Your task to perform on an android device: Go to Yahoo.com Image 0: 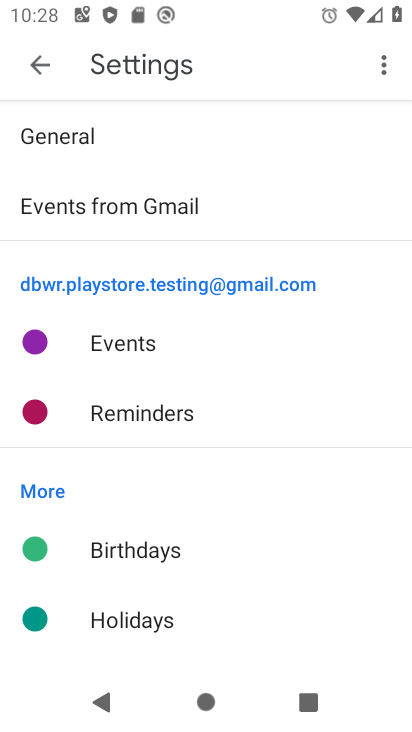
Step 0: press home button
Your task to perform on an android device: Go to Yahoo.com Image 1: 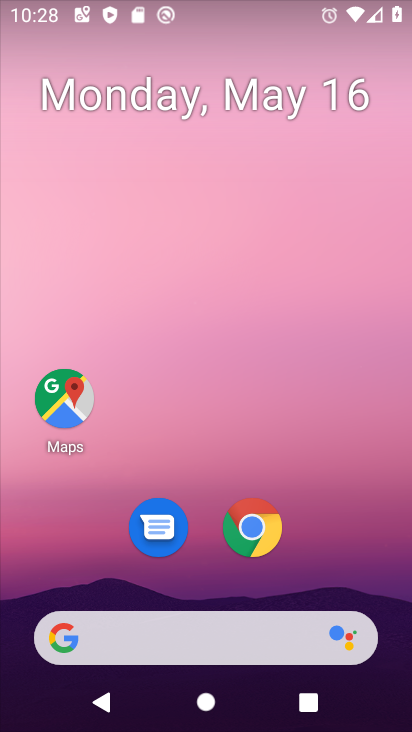
Step 1: click (254, 528)
Your task to perform on an android device: Go to Yahoo.com Image 2: 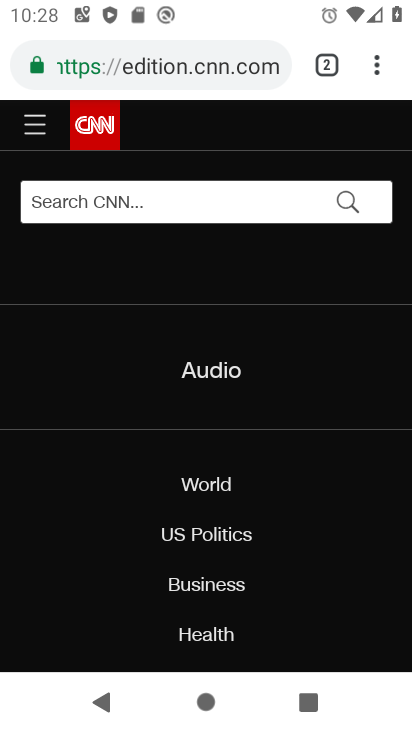
Step 2: click (156, 70)
Your task to perform on an android device: Go to Yahoo.com Image 3: 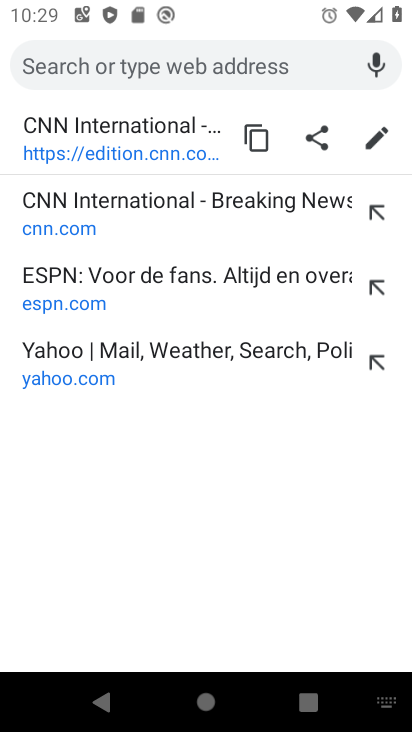
Step 3: click (63, 382)
Your task to perform on an android device: Go to Yahoo.com Image 4: 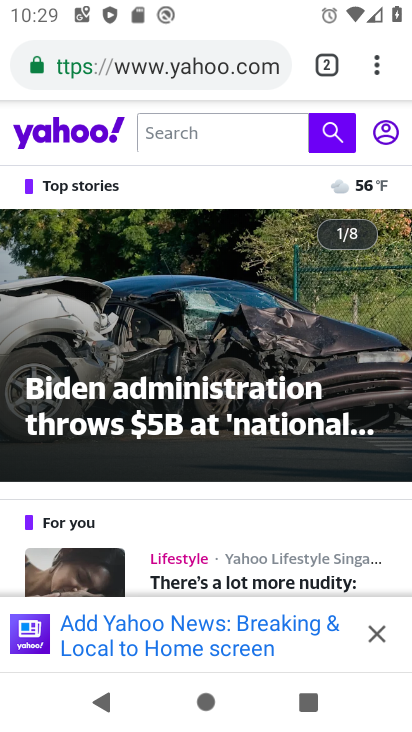
Step 4: task complete